Your task to perform on an android device: Search for 35 best books of all time Image 0: 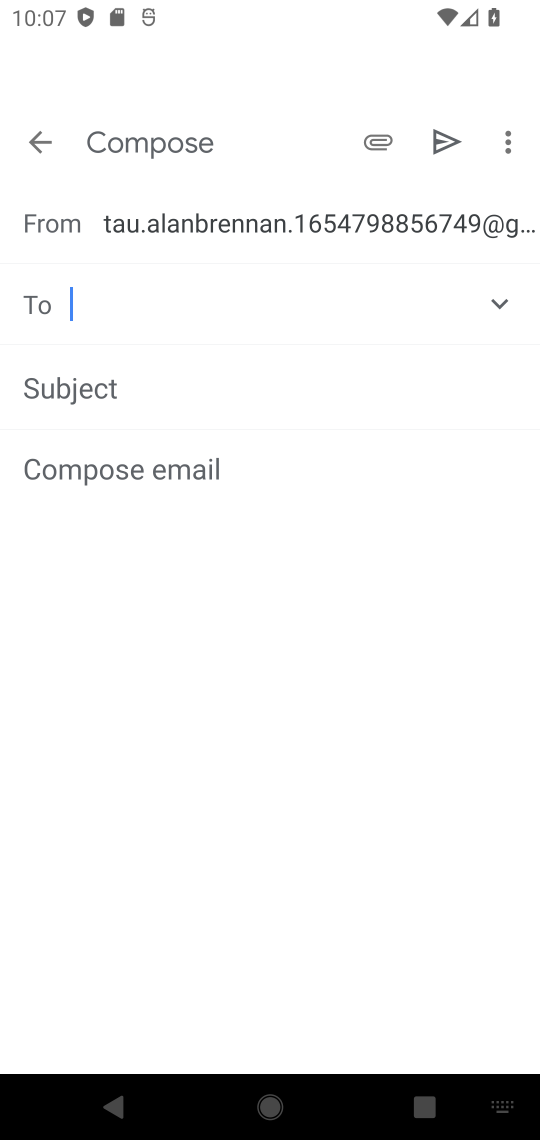
Step 0: press home button
Your task to perform on an android device: Search for 35 best books of all time Image 1: 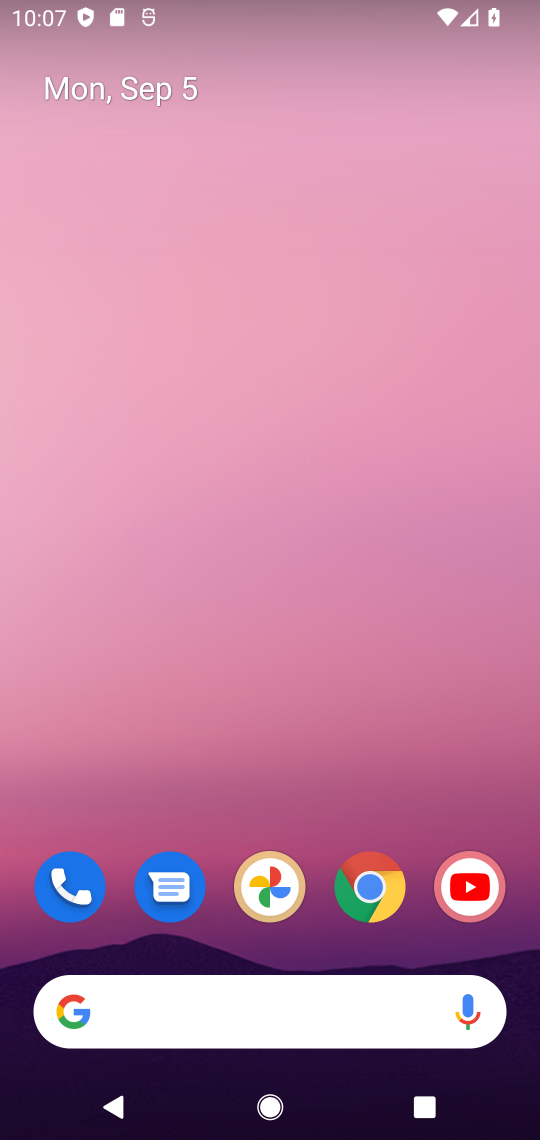
Step 1: click (365, 889)
Your task to perform on an android device: Search for 35 best books of all time Image 2: 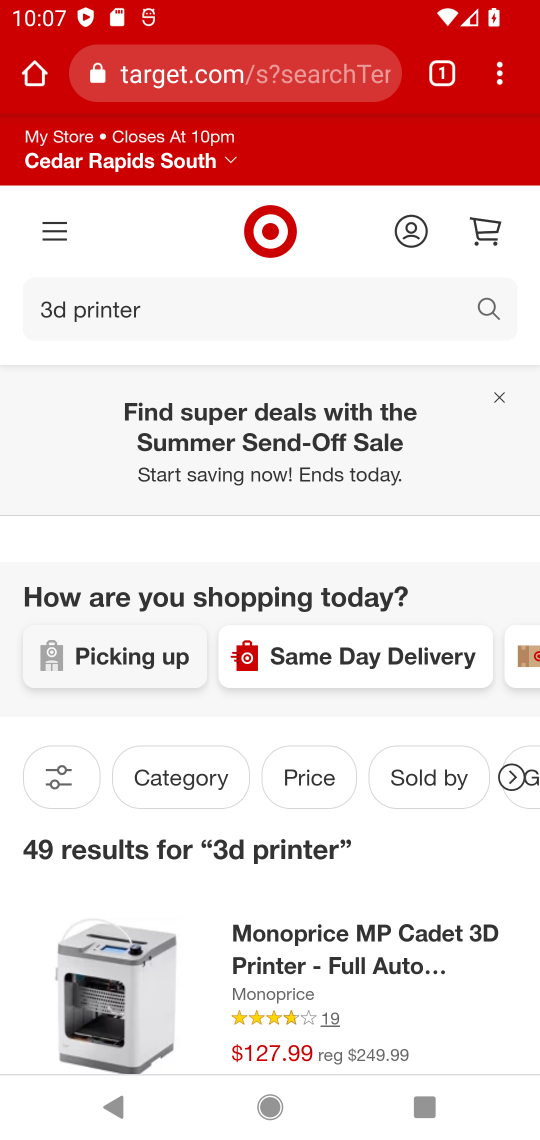
Step 2: click (211, 76)
Your task to perform on an android device: Search for 35 best books of all time Image 3: 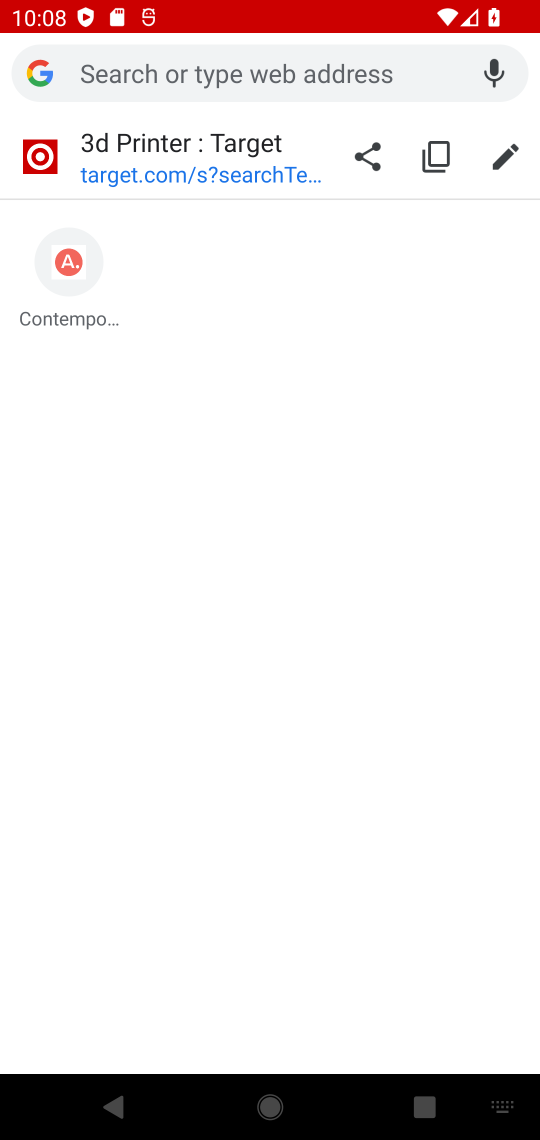
Step 3: type "35 best books of all time"
Your task to perform on an android device: Search for 35 best books of all time Image 4: 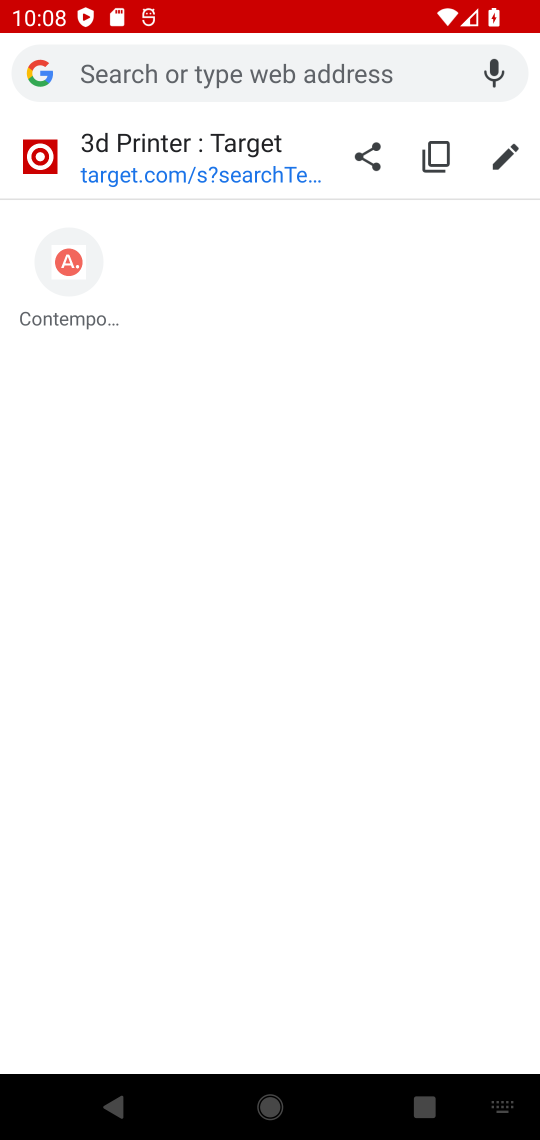
Step 4: click (334, 81)
Your task to perform on an android device: Search for 35 best books of all time Image 5: 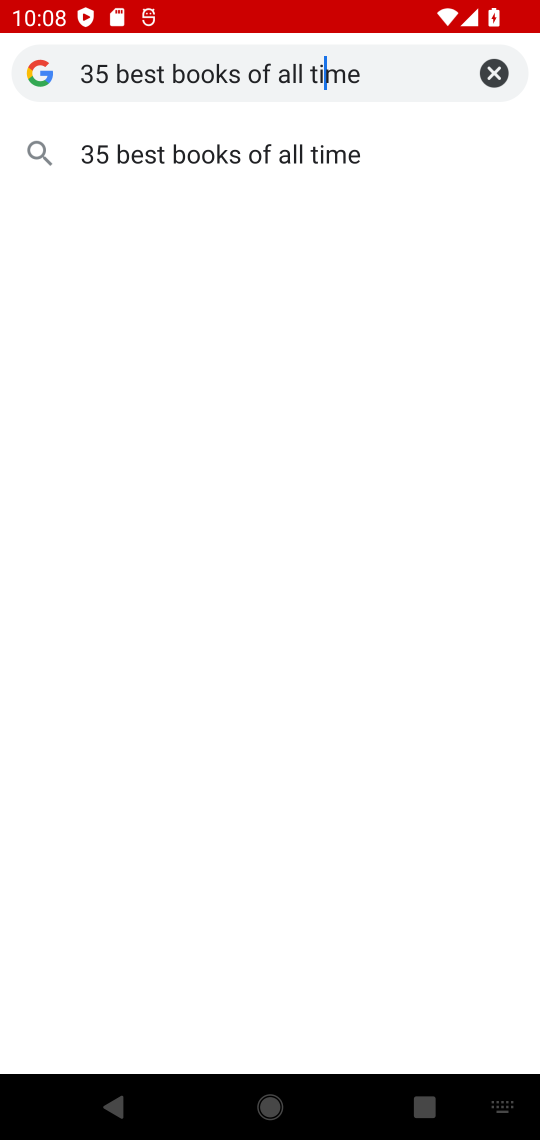
Step 5: click (306, 142)
Your task to perform on an android device: Search for 35 best books of all time Image 6: 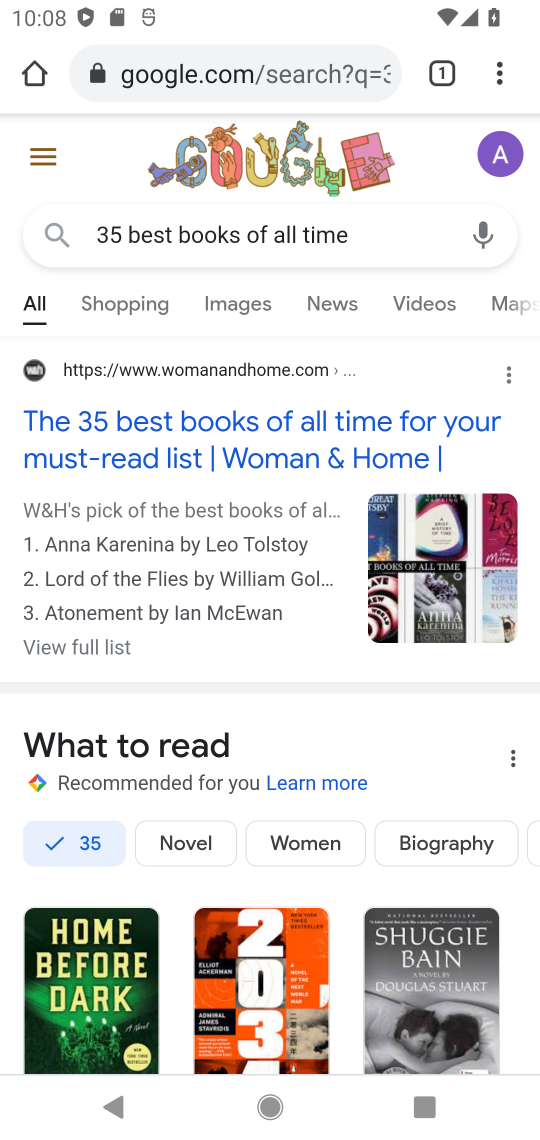
Step 6: click (220, 472)
Your task to perform on an android device: Search for 35 best books of all time Image 7: 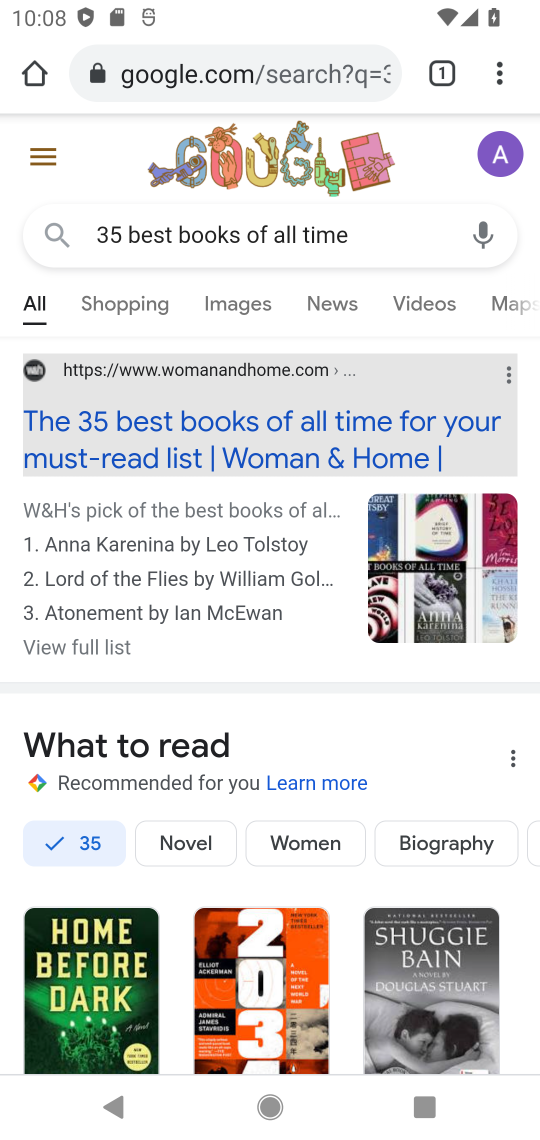
Step 7: task complete